Your task to perform on an android device: Open calendar and show me the fourth week of next month Image 0: 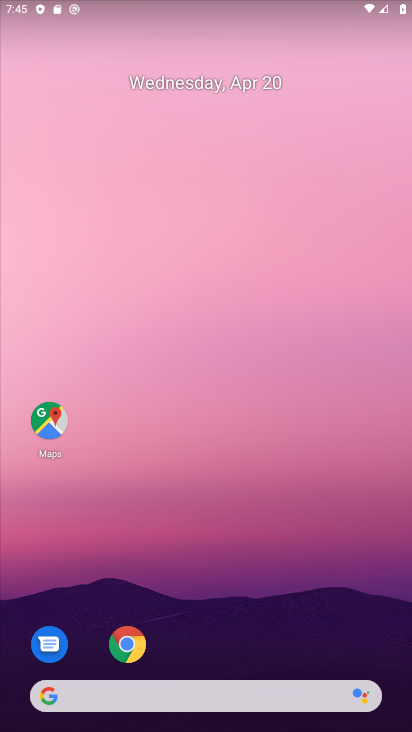
Step 0: drag from (339, 625) to (310, 66)
Your task to perform on an android device: Open calendar and show me the fourth week of next month Image 1: 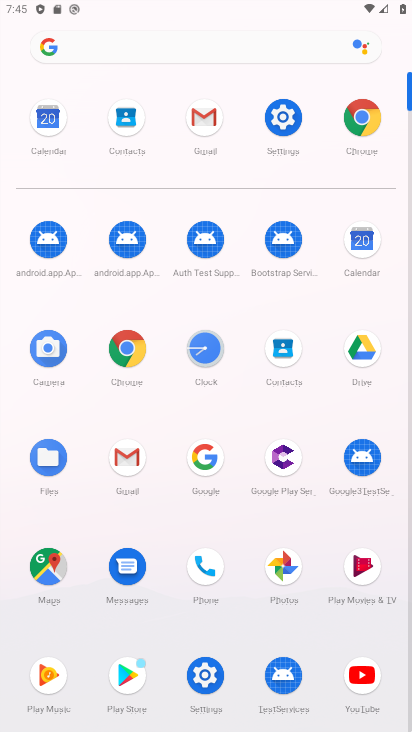
Step 1: click (353, 240)
Your task to perform on an android device: Open calendar and show me the fourth week of next month Image 2: 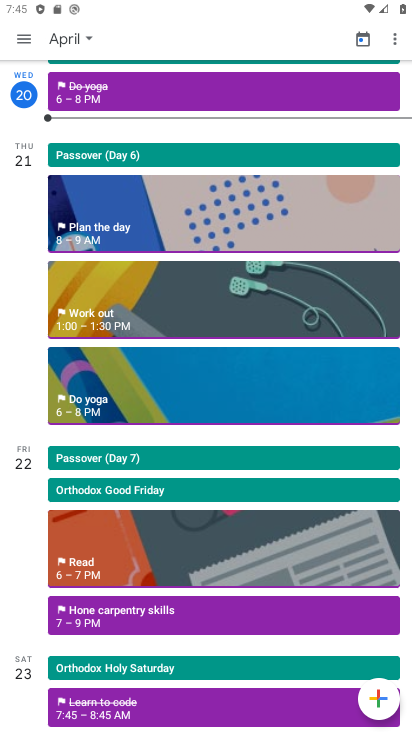
Step 2: click (54, 39)
Your task to perform on an android device: Open calendar and show me the fourth week of next month Image 3: 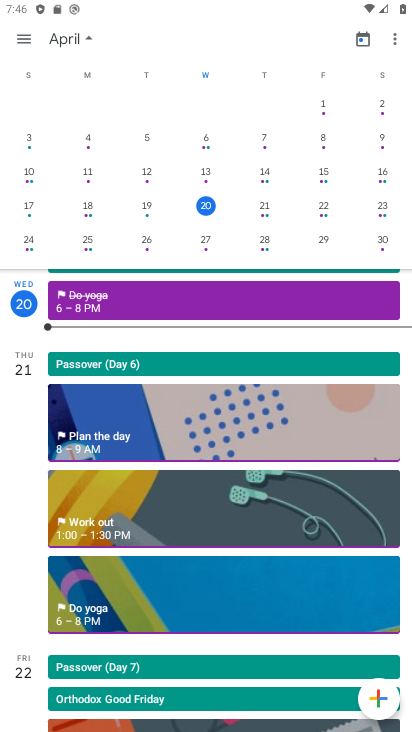
Step 3: drag from (337, 184) to (14, 160)
Your task to perform on an android device: Open calendar and show me the fourth week of next month Image 4: 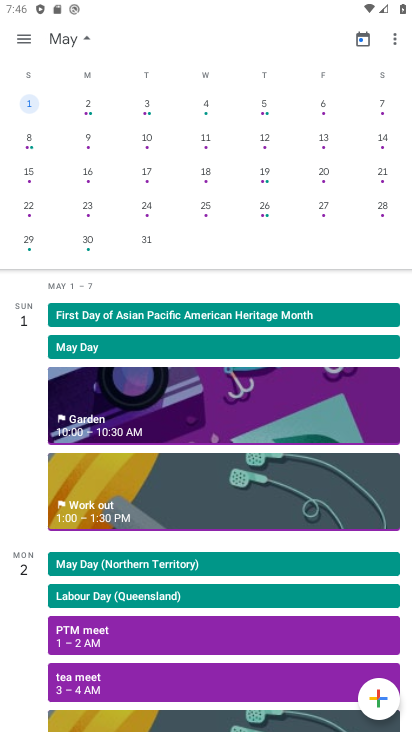
Step 4: click (263, 207)
Your task to perform on an android device: Open calendar and show me the fourth week of next month Image 5: 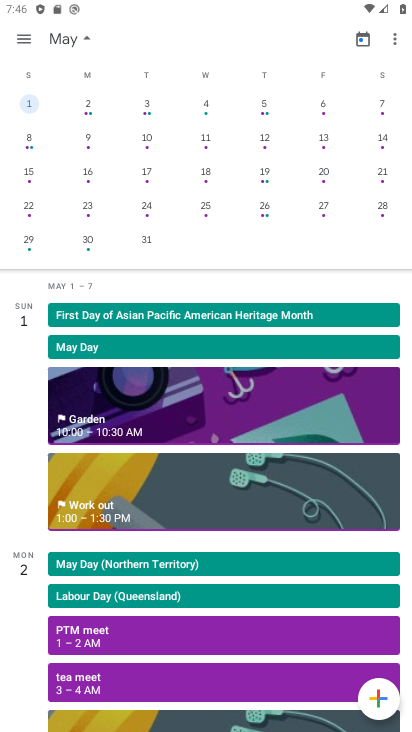
Step 5: click (261, 210)
Your task to perform on an android device: Open calendar and show me the fourth week of next month Image 6: 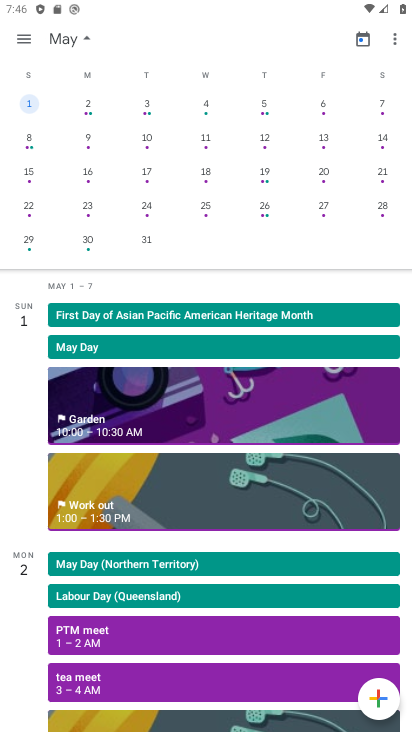
Step 6: click (269, 208)
Your task to perform on an android device: Open calendar and show me the fourth week of next month Image 7: 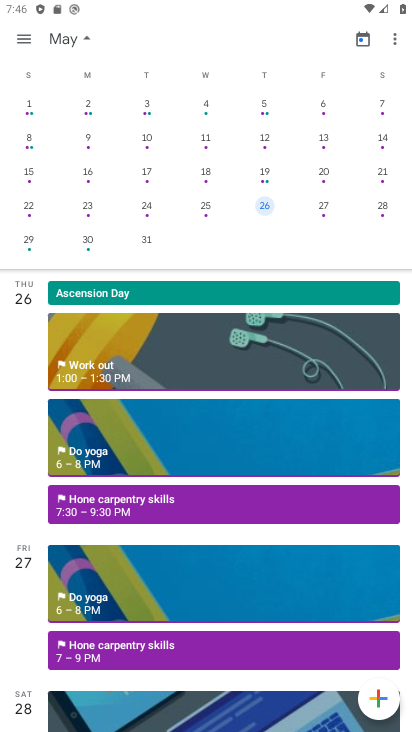
Step 7: task complete